Your task to perform on an android device: Go to wifi settings Image 0: 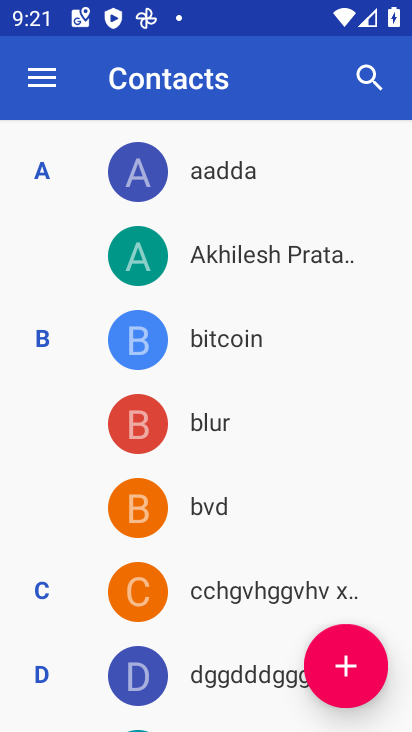
Step 0: press home button
Your task to perform on an android device: Go to wifi settings Image 1: 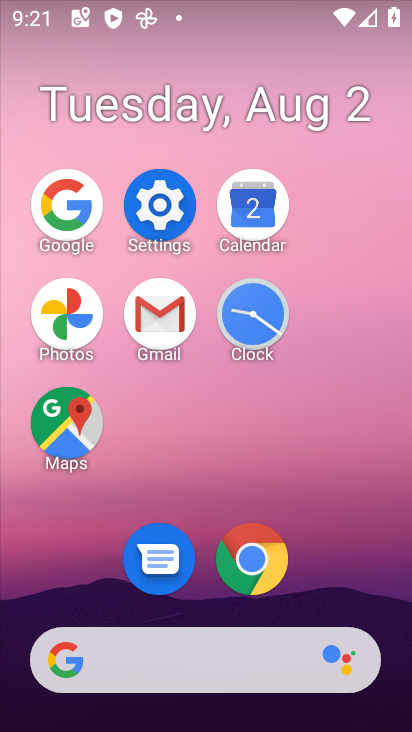
Step 1: click (178, 203)
Your task to perform on an android device: Go to wifi settings Image 2: 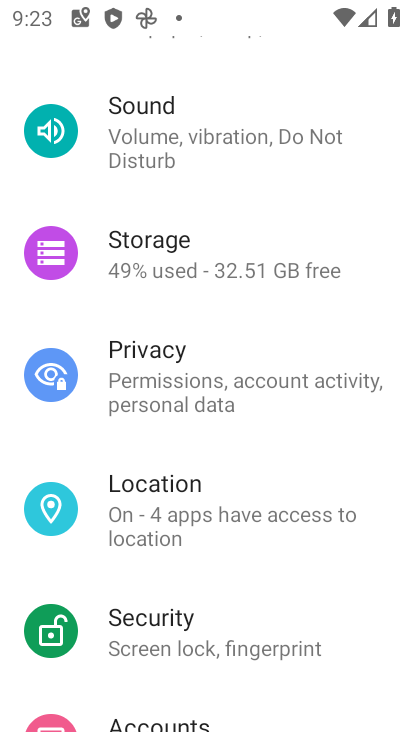
Step 2: press home button
Your task to perform on an android device: Go to wifi settings Image 3: 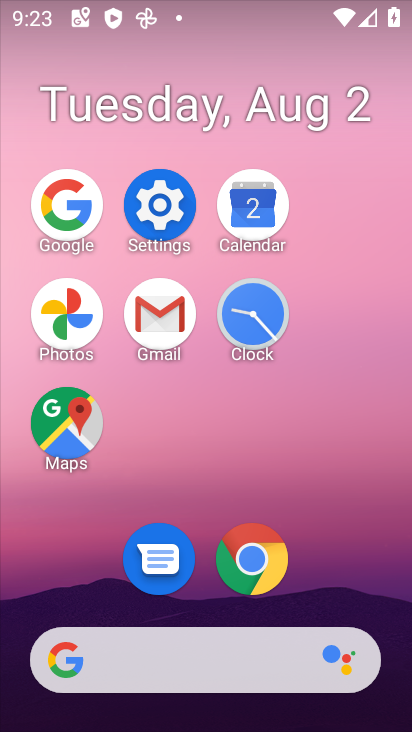
Step 3: click (154, 195)
Your task to perform on an android device: Go to wifi settings Image 4: 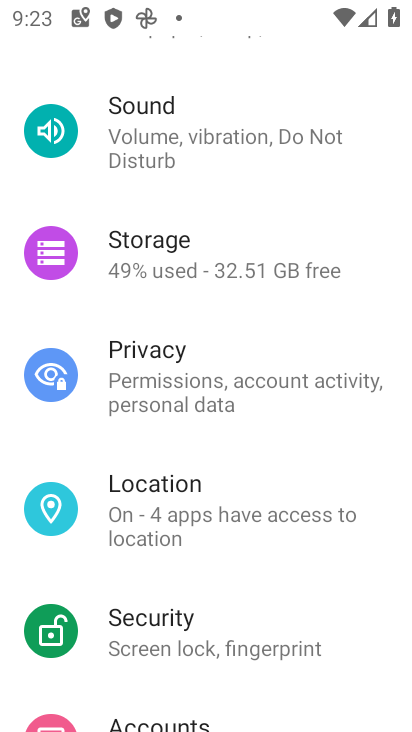
Step 4: drag from (255, 112) to (370, 502)
Your task to perform on an android device: Go to wifi settings Image 5: 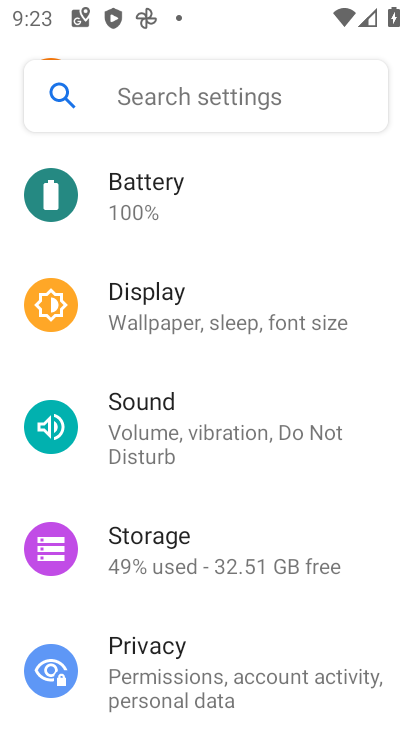
Step 5: drag from (239, 199) to (216, 585)
Your task to perform on an android device: Go to wifi settings Image 6: 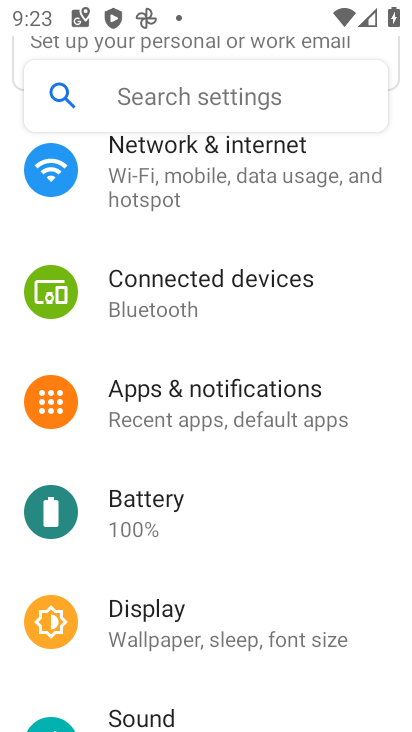
Step 6: drag from (239, 256) to (221, 499)
Your task to perform on an android device: Go to wifi settings Image 7: 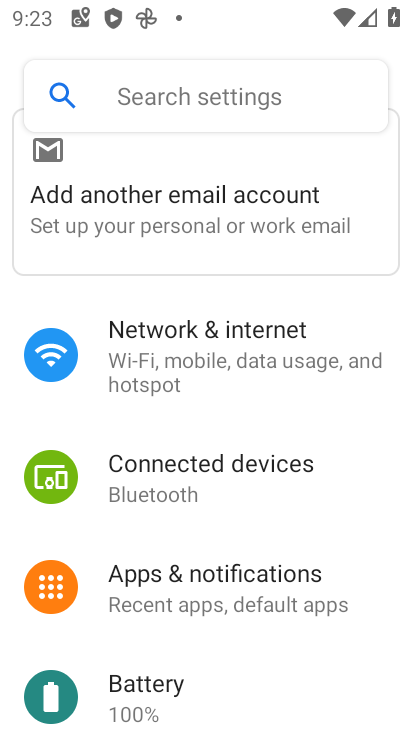
Step 7: click (210, 353)
Your task to perform on an android device: Go to wifi settings Image 8: 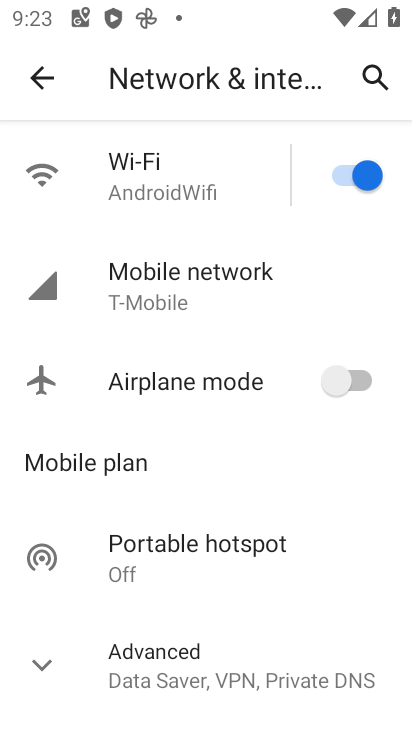
Step 8: click (186, 189)
Your task to perform on an android device: Go to wifi settings Image 9: 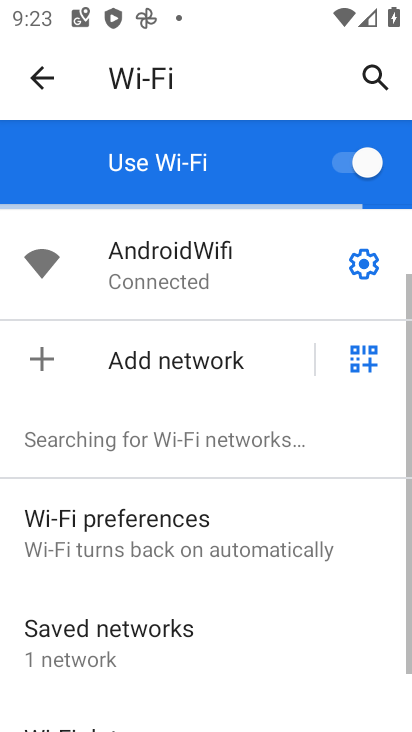
Step 9: click (357, 262)
Your task to perform on an android device: Go to wifi settings Image 10: 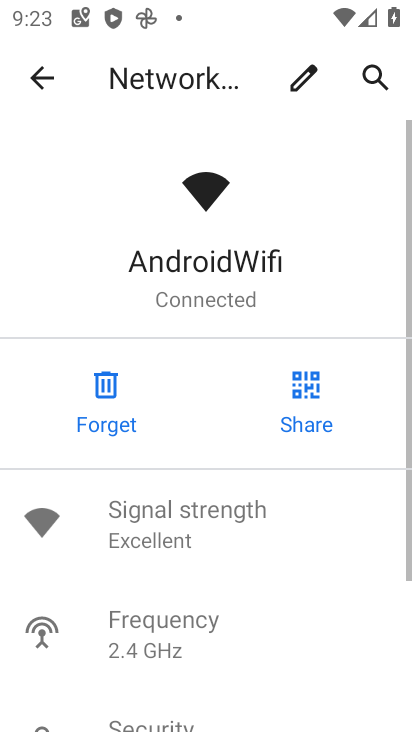
Step 10: task complete